Your task to perform on an android device: Open Google Maps Image 0: 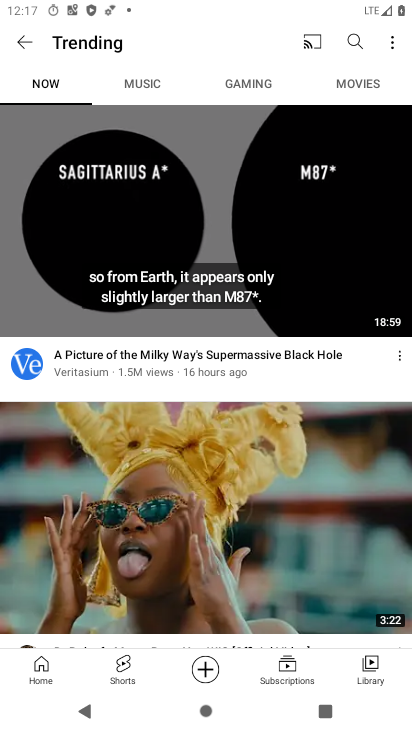
Step 0: press home button
Your task to perform on an android device: Open Google Maps Image 1: 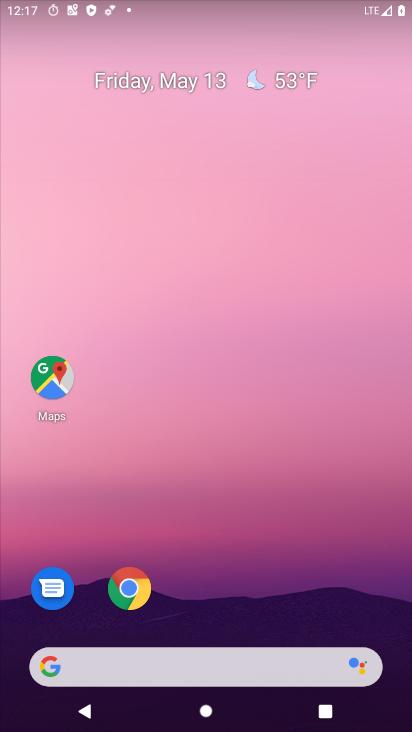
Step 1: click (57, 376)
Your task to perform on an android device: Open Google Maps Image 2: 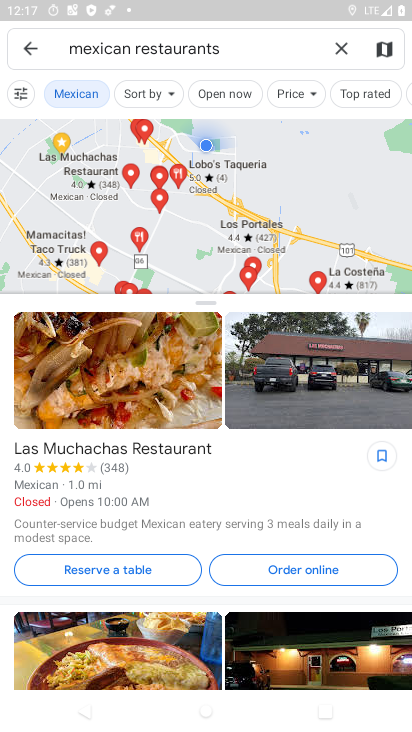
Step 2: task complete